Your task to perform on an android device: check storage Image 0: 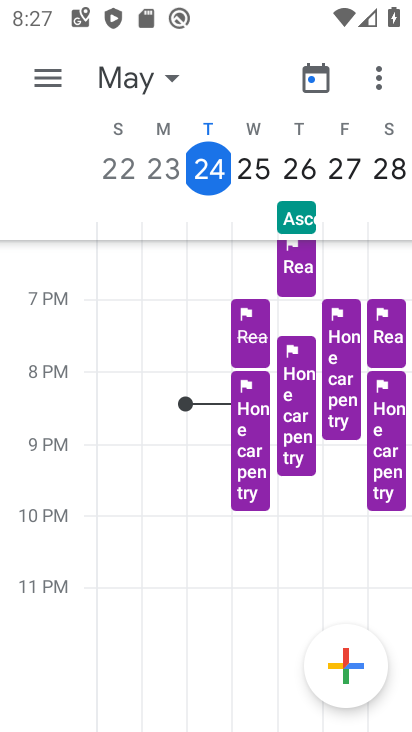
Step 0: press home button
Your task to perform on an android device: check storage Image 1: 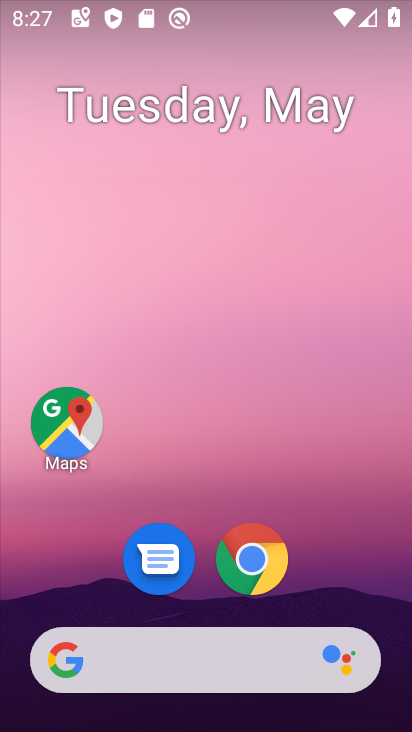
Step 1: drag from (192, 637) to (237, 0)
Your task to perform on an android device: check storage Image 2: 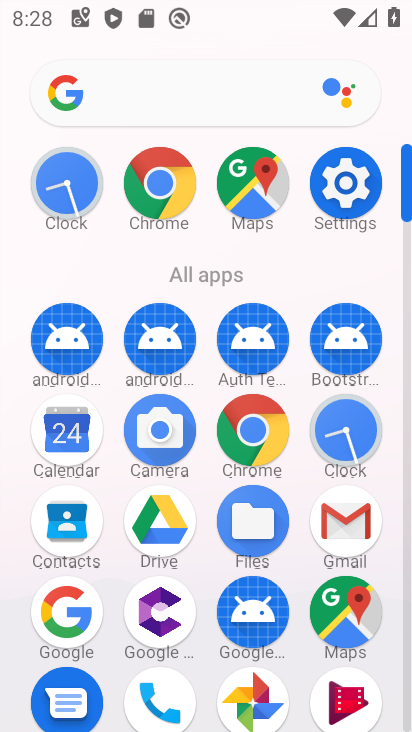
Step 2: click (326, 198)
Your task to perform on an android device: check storage Image 3: 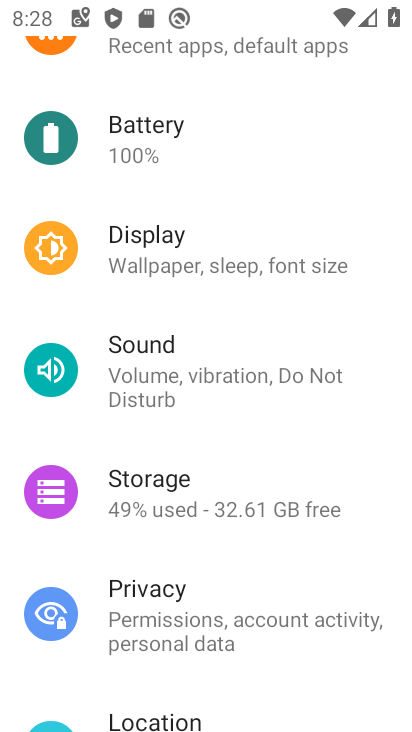
Step 3: click (140, 509)
Your task to perform on an android device: check storage Image 4: 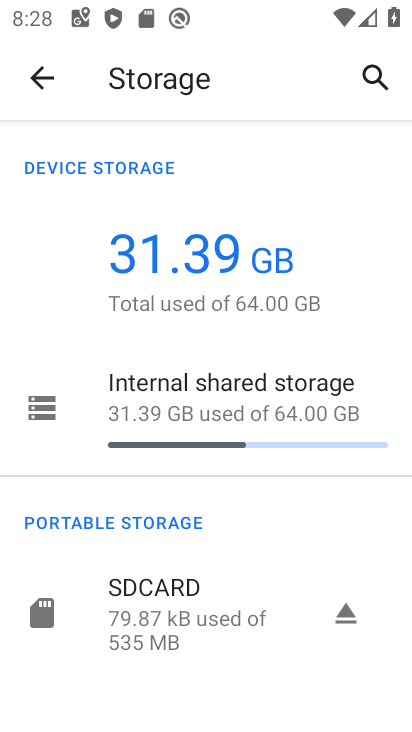
Step 4: click (208, 418)
Your task to perform on an android device: check storage Image 5: 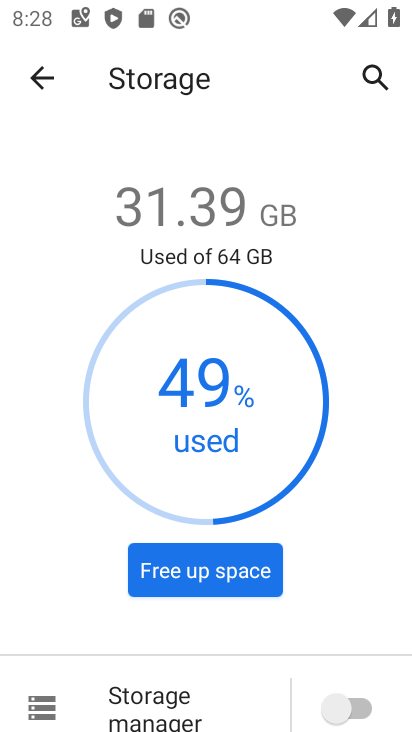
Step 5: task complete